Your task to perform on an android device: set default search engine in the chrome app Image 0: 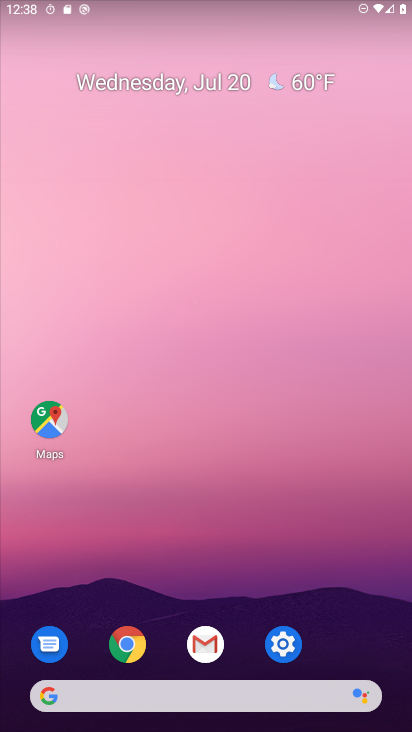
Step 0: click (131, 643)
Your task to perform on an android device: set default search engine in the chrome app Image 1: 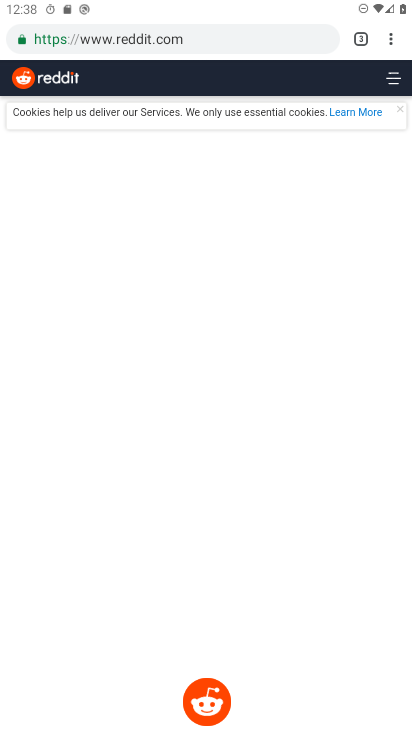
Step 1: click (384, 45)
Your task to perform on an android device: set default search engine in the chrome app Image 2: 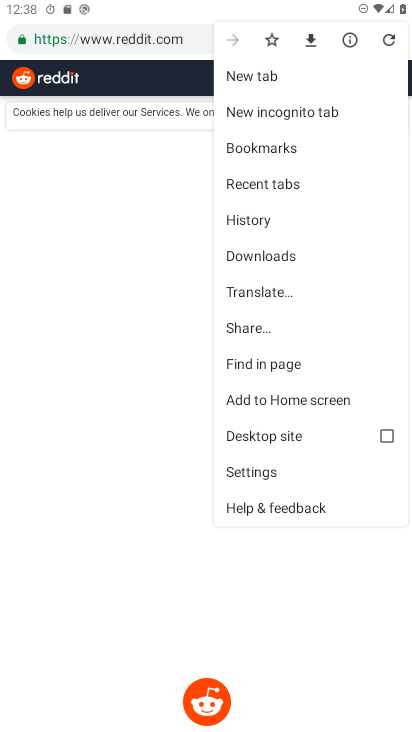
Step 2: click (265, 470)
Your task to perform on an android device: set default search engine in the chrome app Image 3: 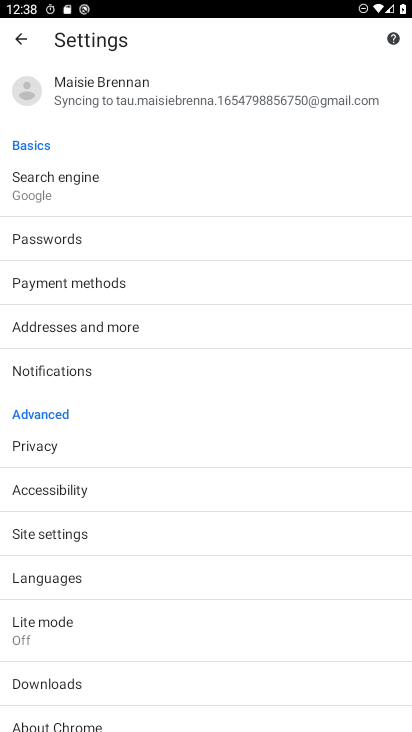
Step 3: click (73, 193)
Your task to perform on an android device: set default search engine in the chrome app Image 4: 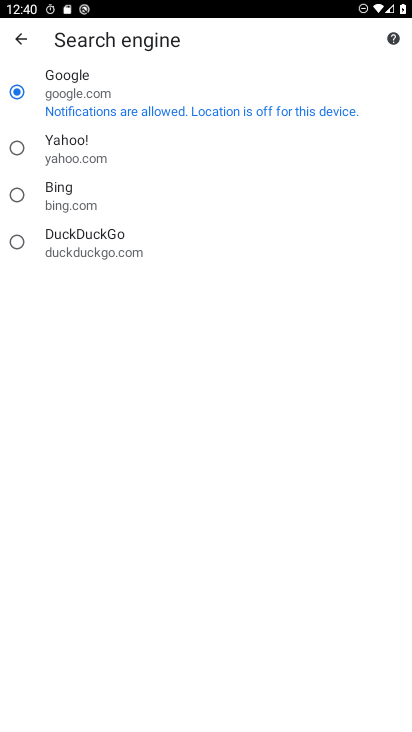
Step 4: task complete